Your task to perform on an android device: turn on location history Image 0: 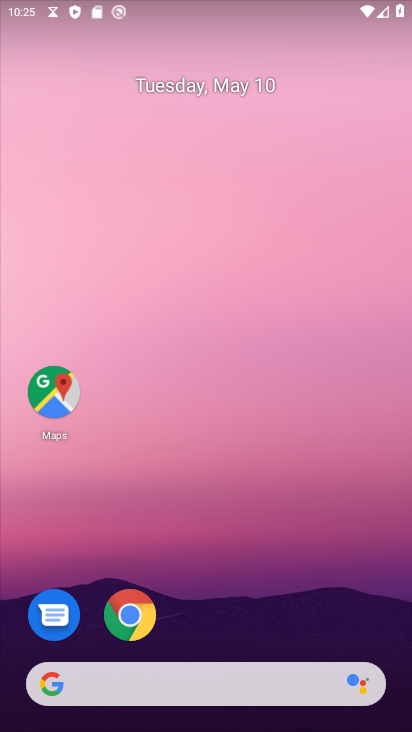
Step 0: drag from (250, 597) to (266, 6)
Your task to perform on an android device: turn on location history Image 1: 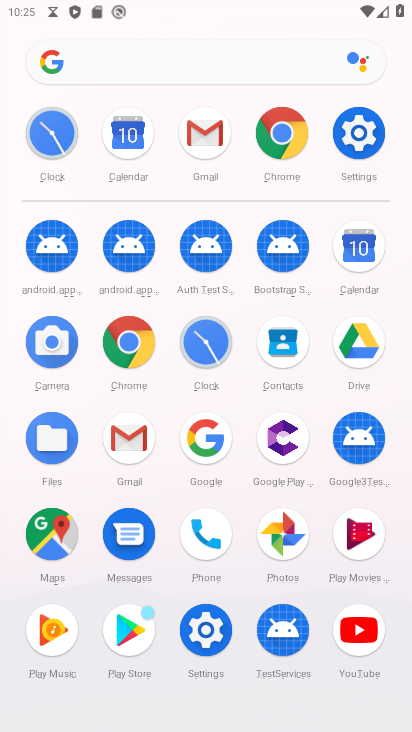
Step 1: click (359, 131)
Your task to perform on an android device: turn on location history Image 2: 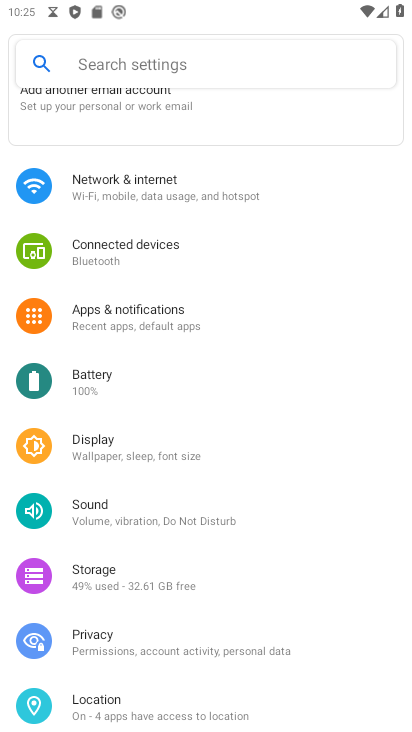
Step 2: drag from (161, 467) to (201, 364)
Your task to perform on an android device: turn on location history Image 3: 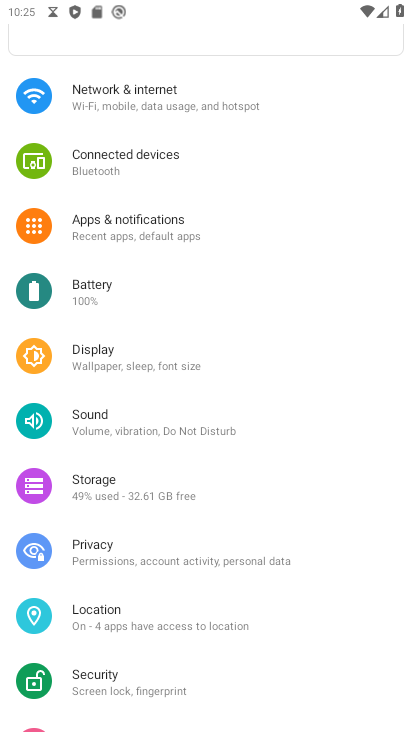
Step 3: click (114, 620)
Your task to perform on an android device: turn on location history Image 4: 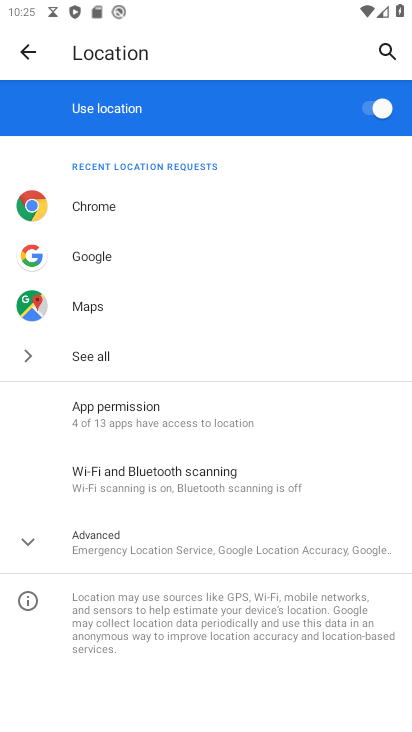
Step 4: click (140, 550)
Your task to perform on an android device: turn on location history Image 5: 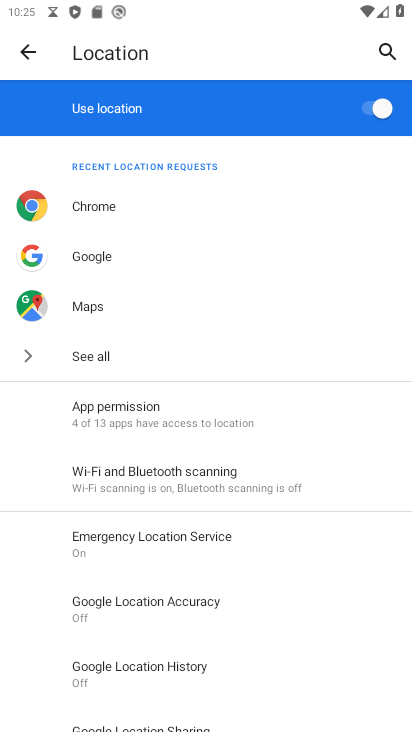
Step 5: drag from (157, 653) to (232, 555)
Your task to perform on an android device: turn on location history Image 6: 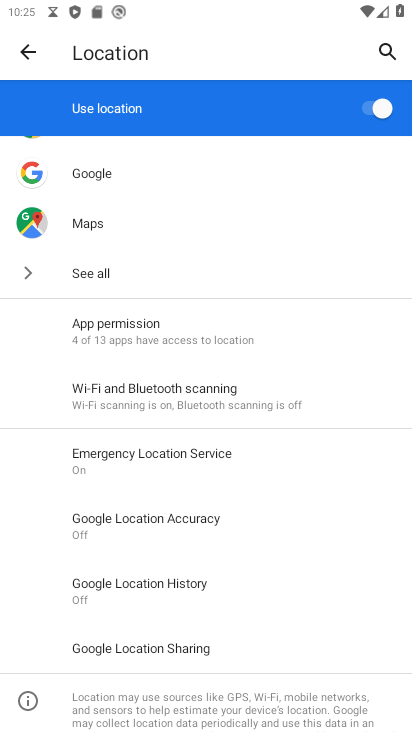
Step 6: click (199, 585)
Your task to perform on an android device: turn on location history Image 7: 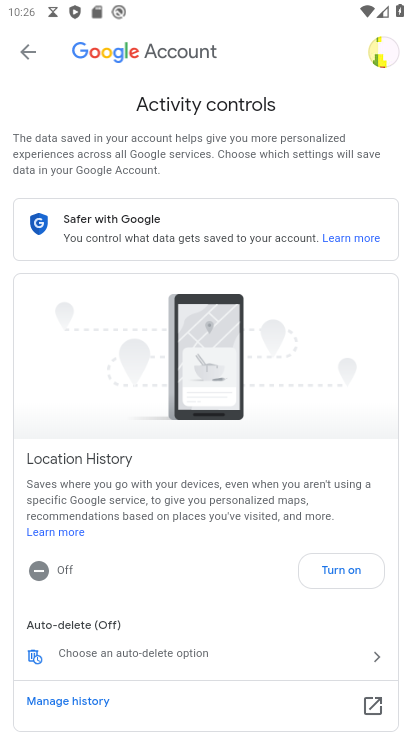
Step 7: click (346, 568)
Your task to perform on an android device: turn on location history Image 8: 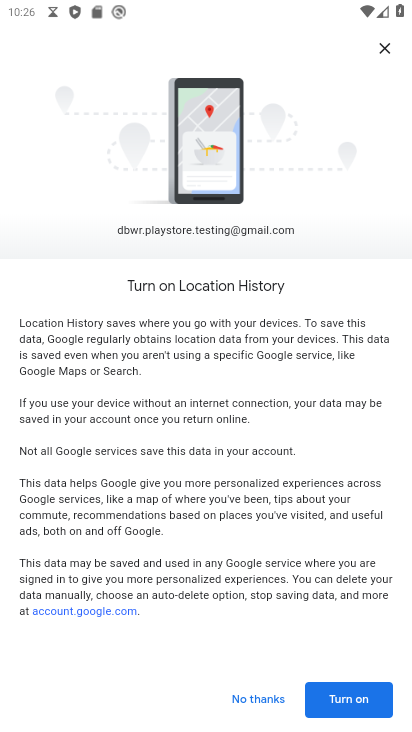
Step 8: click (349, 695)
Your task to perform on an android device: turn on location history Image 9: 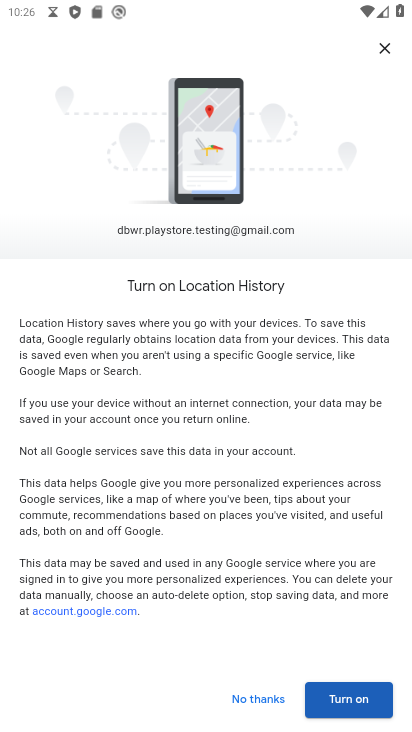
Step 9: click (349, 701)
Your task to perform on an android device: turn on location history Image 10: 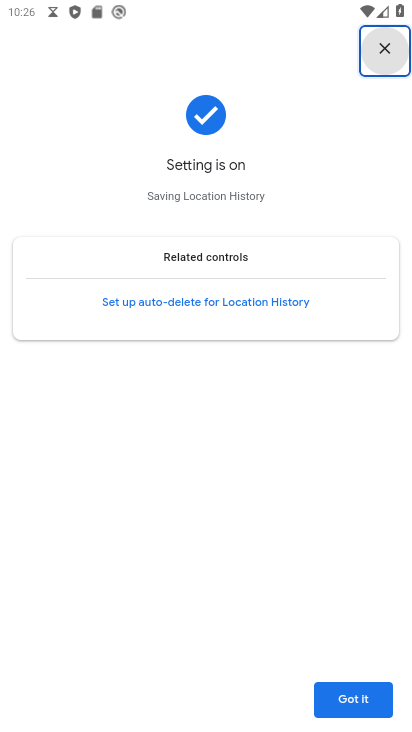
Step 10: task complete